Your task to perform on an android device: Open Google Maps Image 0: 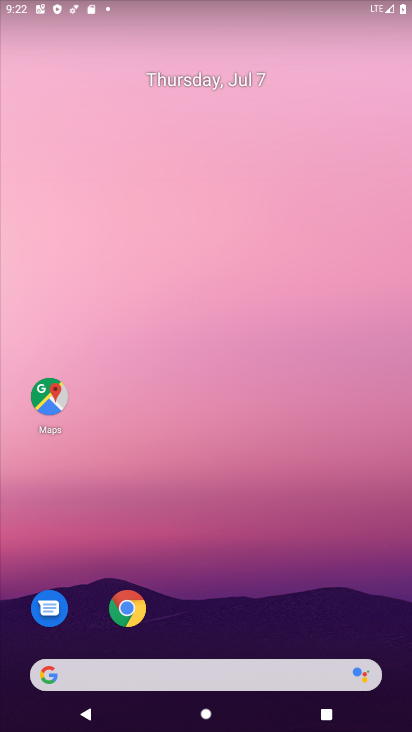
Step 0: click (52, 400)
Your task to perform on an android device: Open Google Maps Image 1: 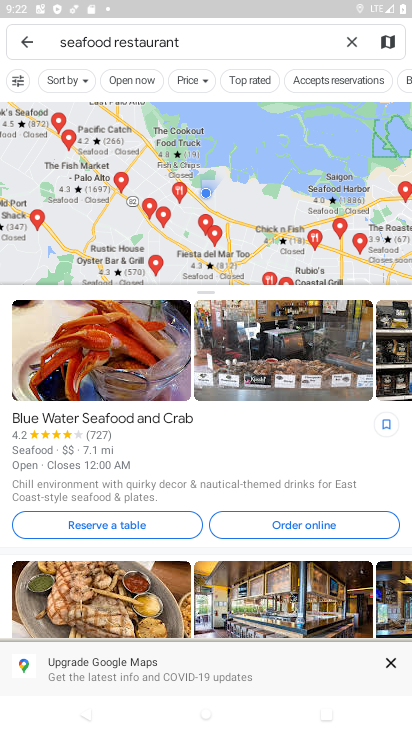
Step 1: task complete